Your task to perform on an android device: search for starred emails in the gmail app Image 0: 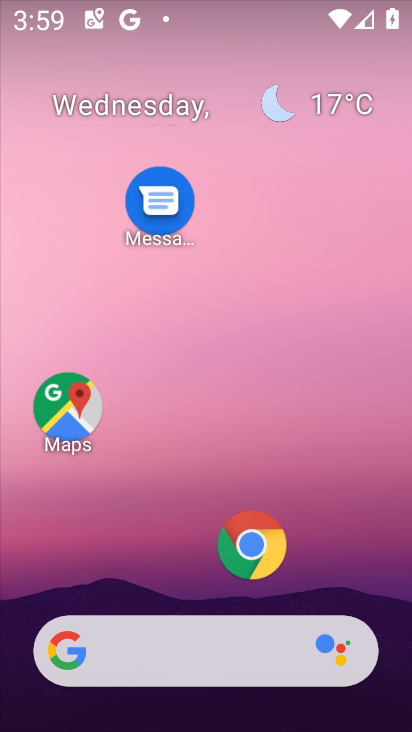
Step 0: drag from (312, 563) to (290, 134)
Your task to perform on an android device: search for starred emails in the gmail app Image 1: 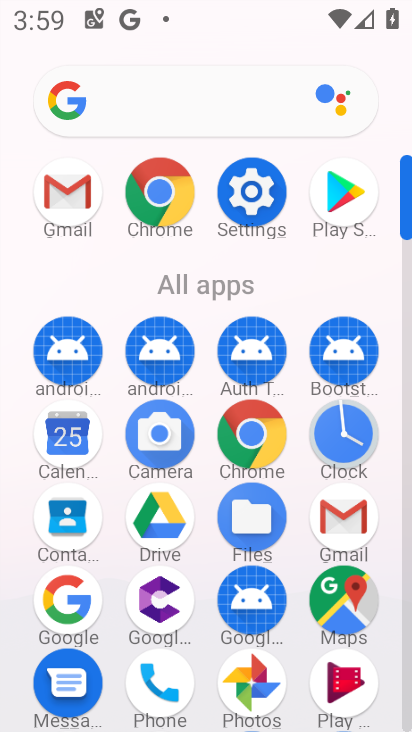
Step 1: click (65, 197)
Your task to perform on an android device: search for starred emails in the gmail app Image 2: 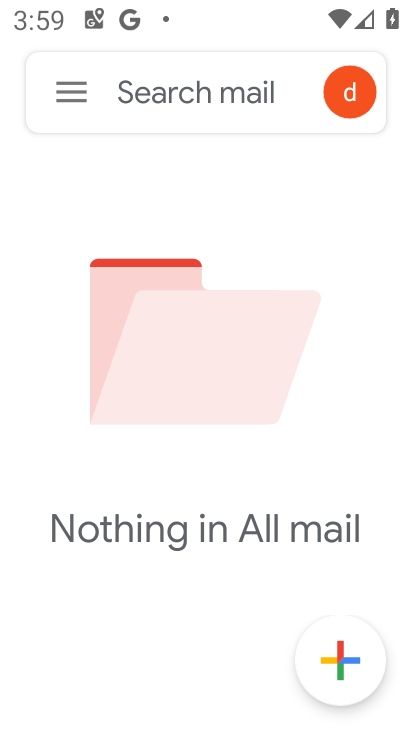
Step 2: click (71, 80)
Your task to perform on an android device: search for starred emails in the gmail app Image 3: 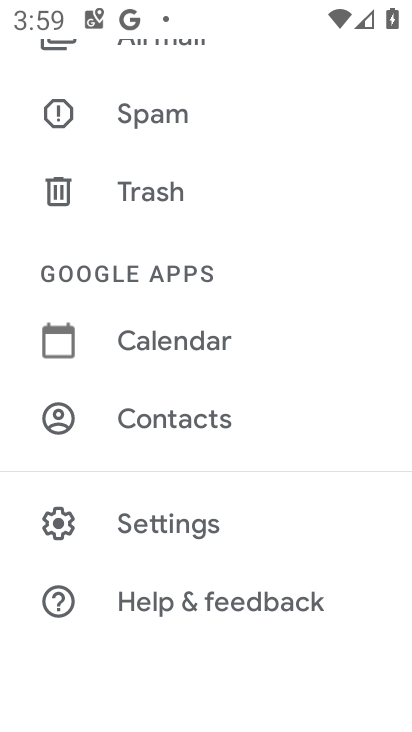
Step 3: drag from (200, 124) to (227, 641)
Your task to perform on an android device: search for starred emails in the gmail app Image 4: 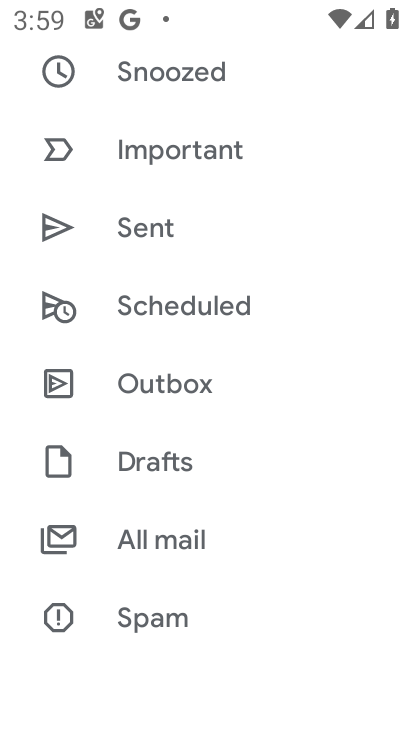
Step 4: drag from (276, 248) to (339, 611)
Your task to perform on an android device: search for starred emails in the gmail app Image 5: 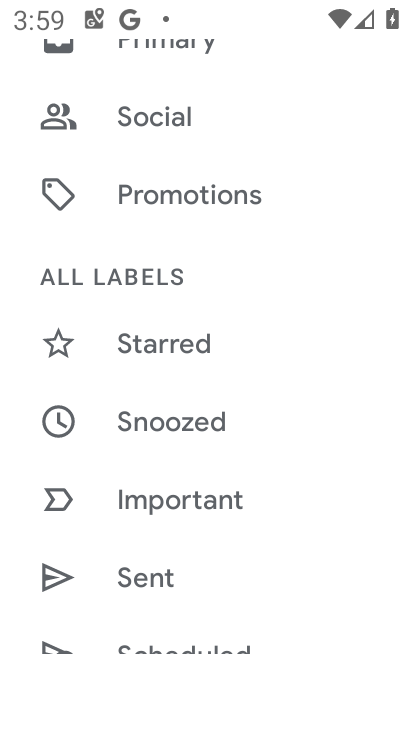
Step 5: drag from (306, 280) to (332, 486)
Your task to perform on an android device: search for starred emails in the gmail app Image 6: 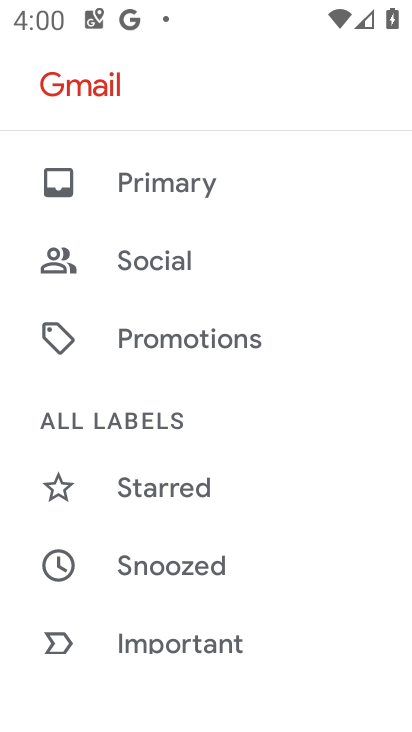
Step 6: click (205, 459)
Your task to perform on an android device: search for starred emails in the gmail app Image 7: 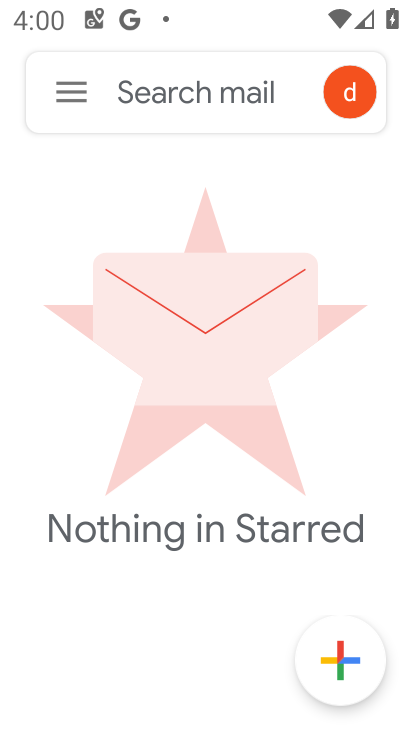
Step 7: task complete